Your task to perform on an android device: Show me popular games on the Play Store Image 0: 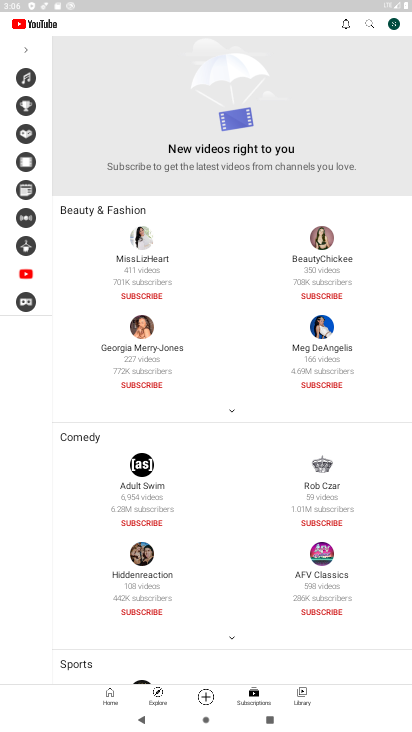
Step 0: press home button
Your task to perform on an android device: Show me popular games on the Play Store Image 1: 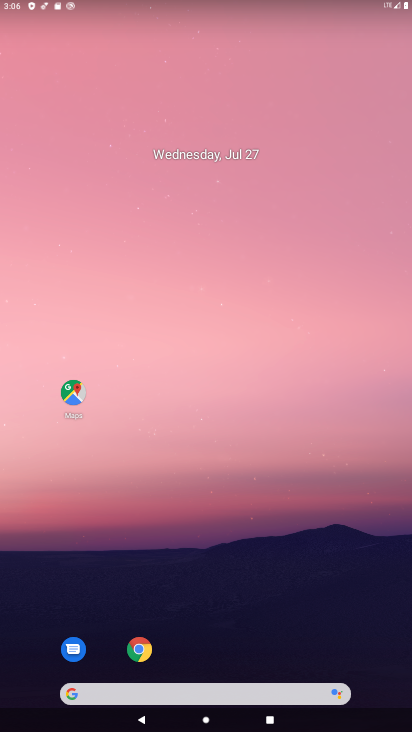
Step 1: drag from (253, 605) to (261, 128)
Your task to perform on an android device: Show me popular games on the Play Store Image 2: 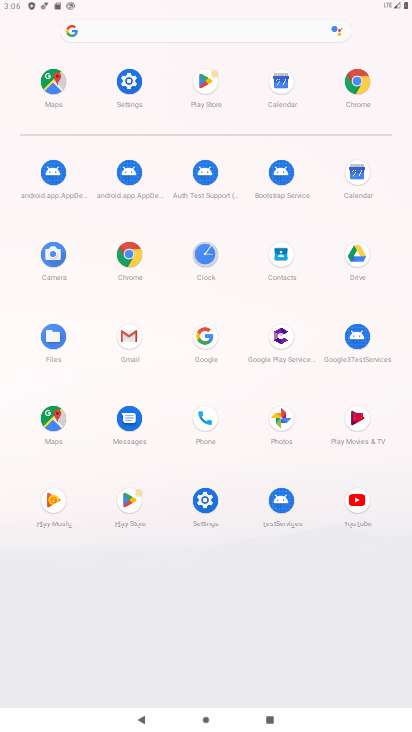
Step 2: click (128, 501)
Your task to perform on an android device: Show me popular games on the Play Store Image 3: 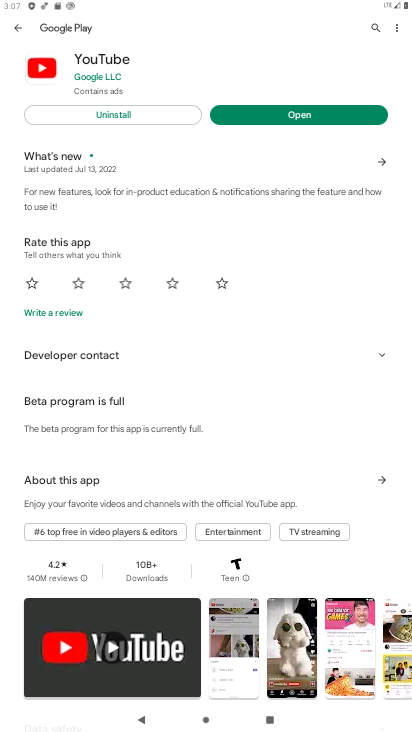
Step 3: click (13, 30)
Your task to perform on an android device: Show me popular games on the Play Store Image 4: 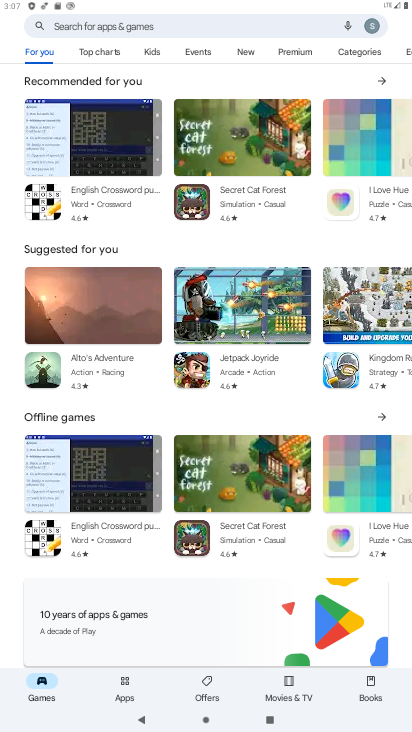
Step 4: click (212, 23)
Your task to perform on an android device: Show me popular games on the Play Store Image 5: 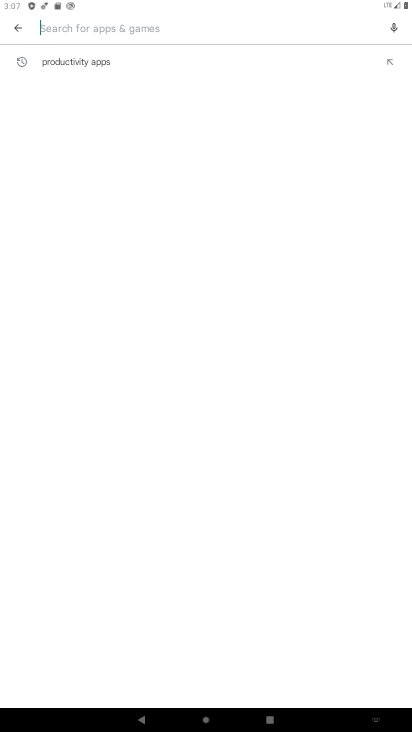
Step 5: type "popular games"
Your task to perform on an android device: Show me popular games on the Play Store Image 6: 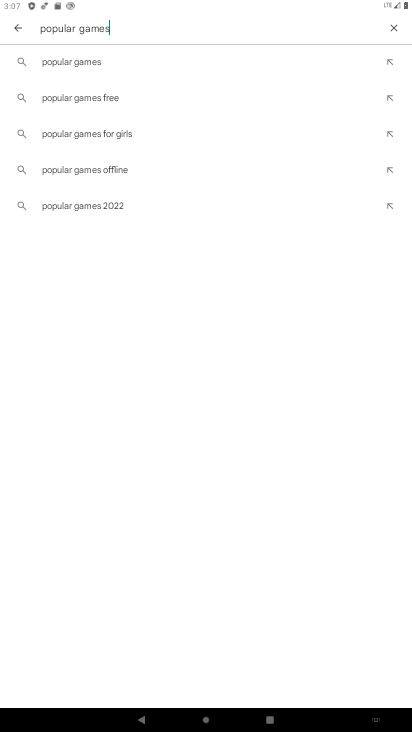
Step 6: click (86, 57)
Your task to perform on an android device: Show me popular games on the Play Store Image 7: 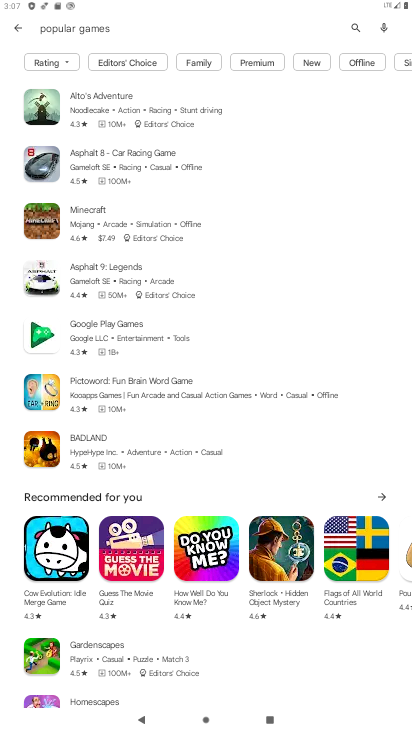
Step 7: task complete